Your task to perform on an android device: toggle notifications settings in the gmail app Image 0: 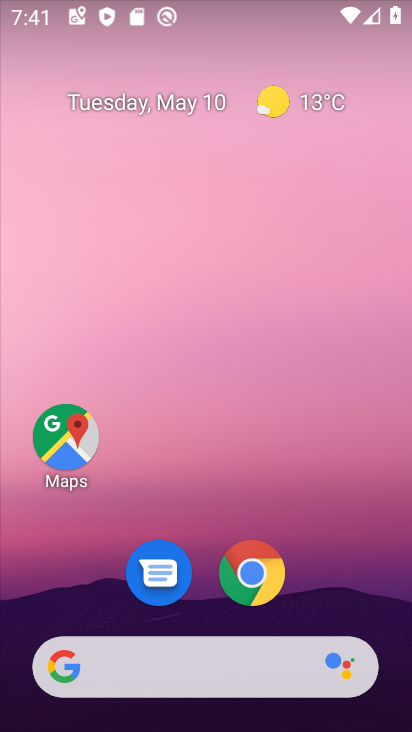
Step 0: drag from (385, 607) to (314, 0)
Your task to perform on an android device: toggle notifications settings in the gmail app Image 1: 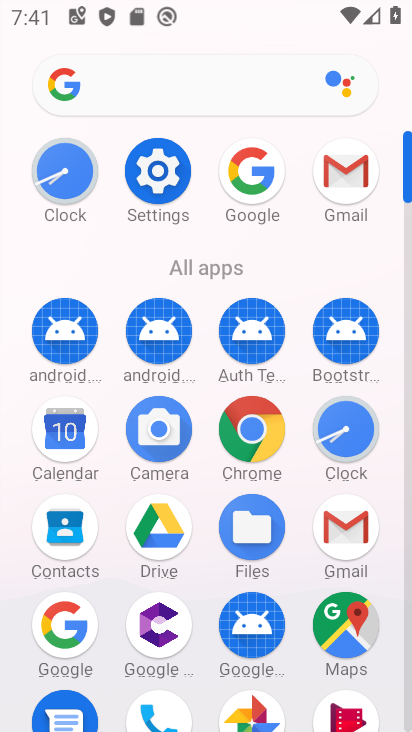
Step 1: click (334, 180)
Your task to perform on an android device: toggle notifications settings in the gmail app Image 2: 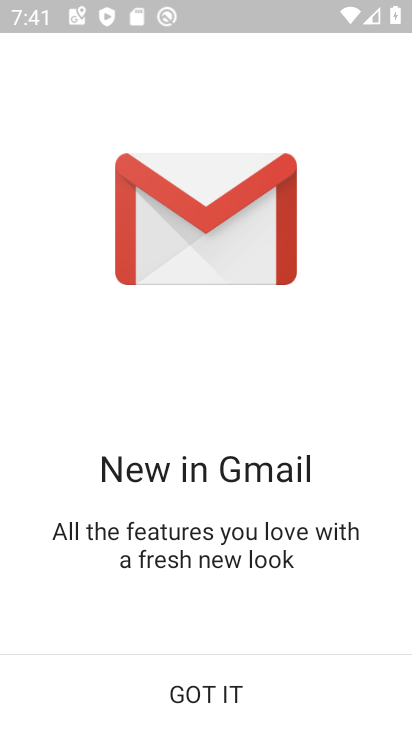
Step 2: click (233, 687)
Your task to perform on an android device: toggle notifications settings in the gmail app Image 3: 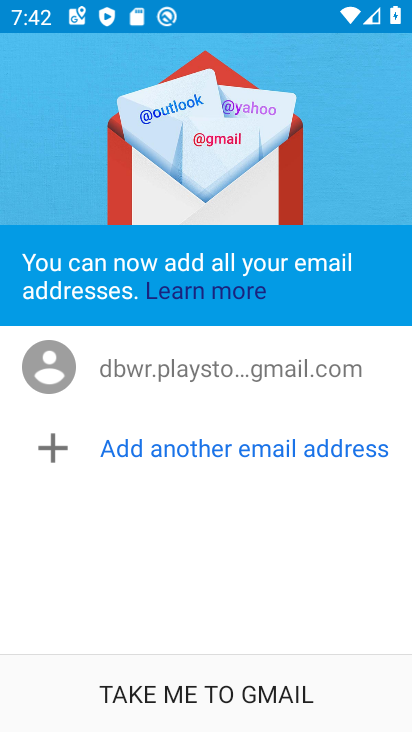
Step 3: click (230, 694)
Your task to perform on an android device: toggle notifications settings in the gmail app Image 4: 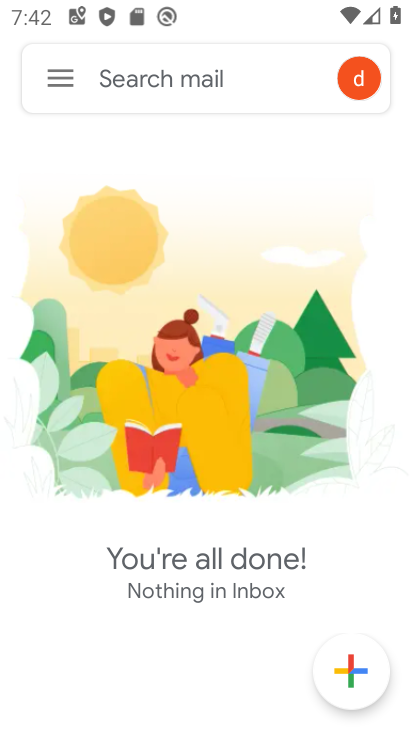
Step 4: click (58, 98)
Your task to perform on an android device: toggle notifications settings in the gmail app Image 5: 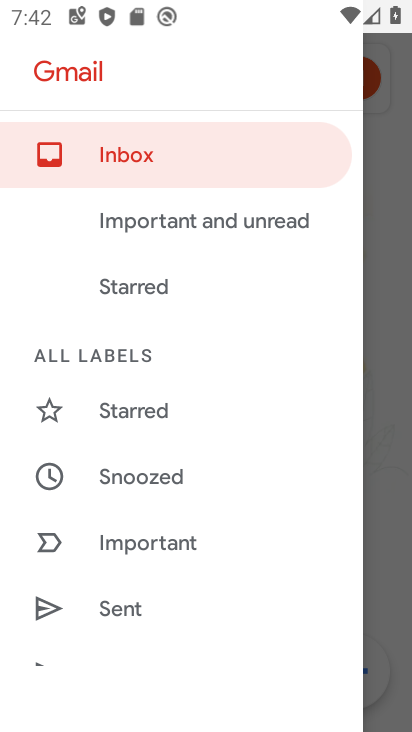
Step 5: drag from (239, 583) to (250, 280)
Your task to perform on an android device: toggle notifications settings in the gmail app Image 6: 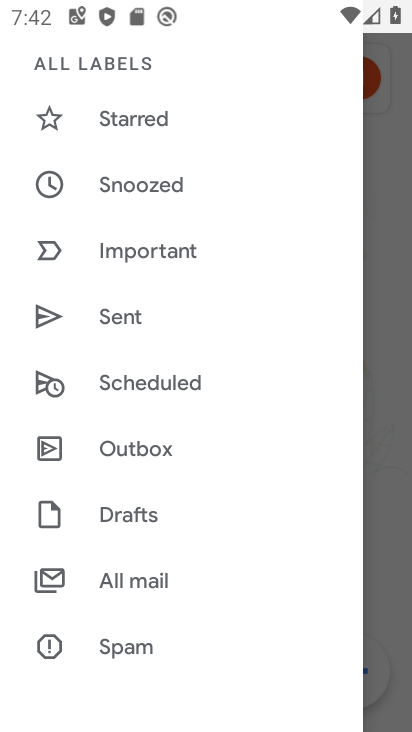
Step 6: drag from (201, 586) to (214, 257)
Your task to perform on an android device: toggle notifications settings in the gmail app Image 7: 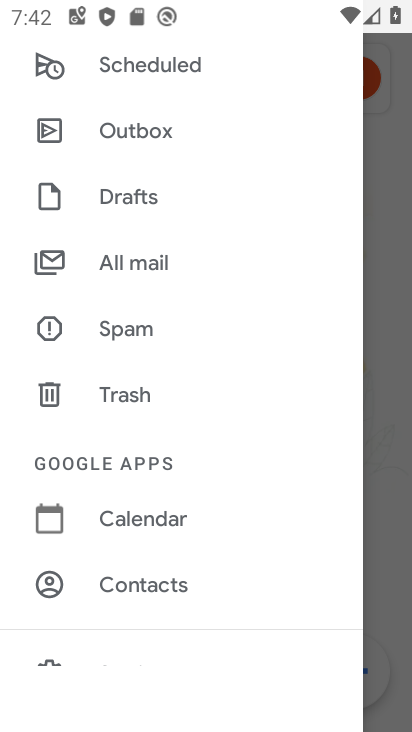
Step 7: drag from (252, 567) to (258, 280)
Your task to perform on an android device: toggle notifications settings in the gmail app Image 8: 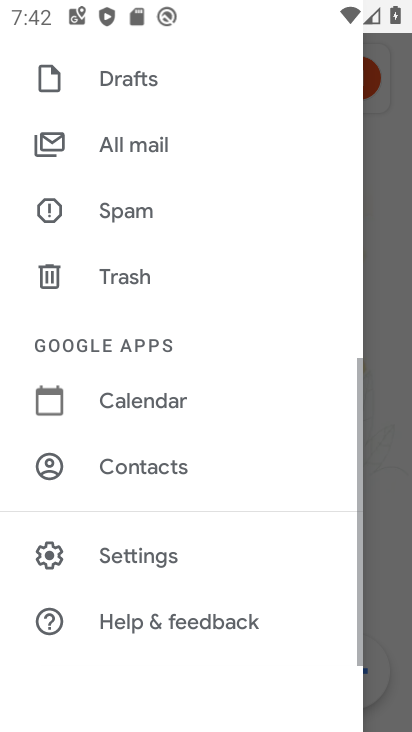
Step 8: click (152, 561)
Your task to perform on an android device: toggle notifications settings in the gmail app Image 9: 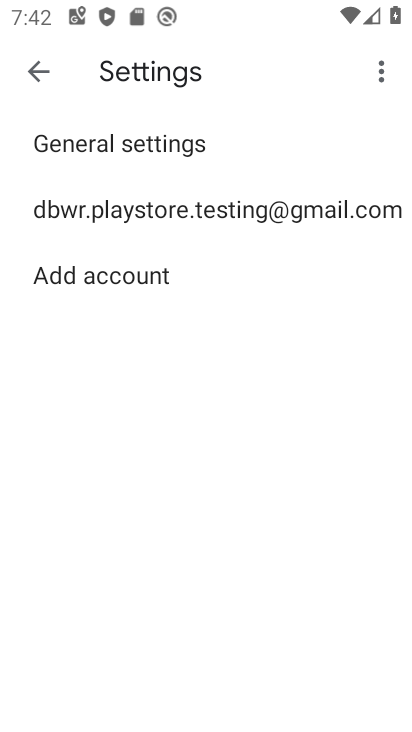
Step 9: click (103, 152)
Your task to perform on an android device: toggle notifications settings in the gmail app Image 10: 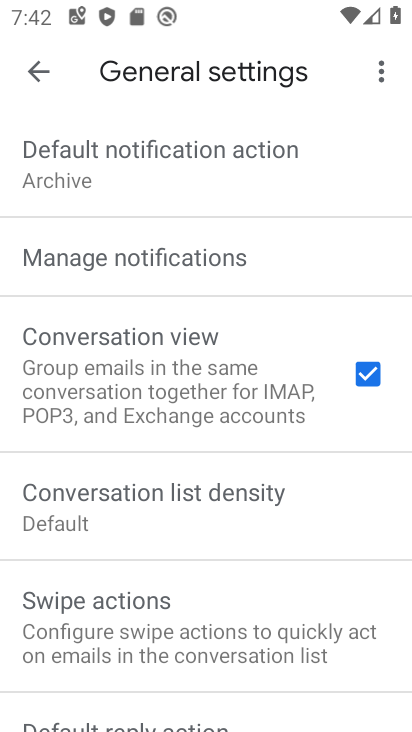
Step 10: click (103, 265)
Your task to perform on an android device: toggle notifications settings in the gmail app Image 11: 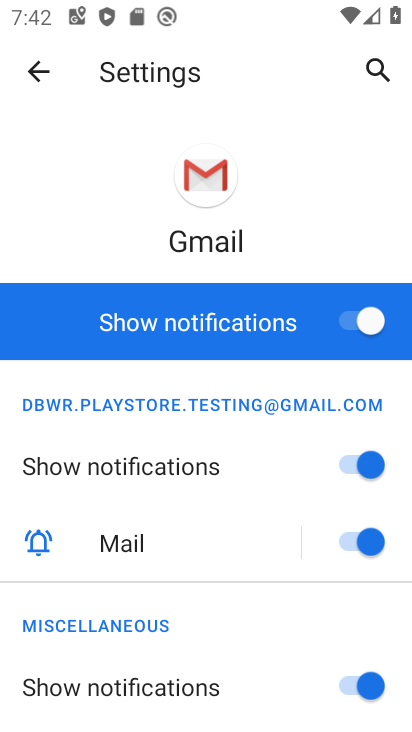
Step 11: click (376, 318)
Your task to perform on an android device: toggle notifications settings in the gmail app Image 12: 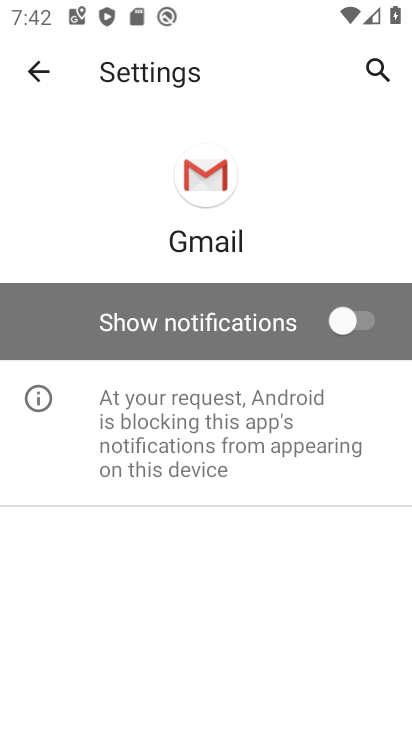
Step 12: task complete